Your task to perform on an android device: see tabs open on other devices in the chrome app Image 0: 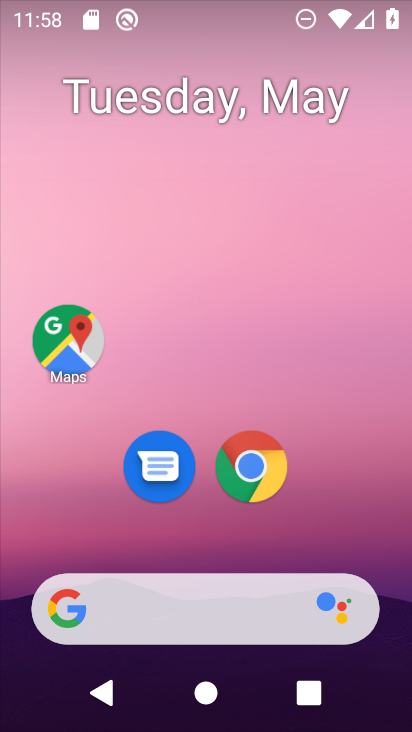
Step 0: click (254, 458)
Your task to perform on an android device: see tabs open on other devices in the chrome app Image 1: 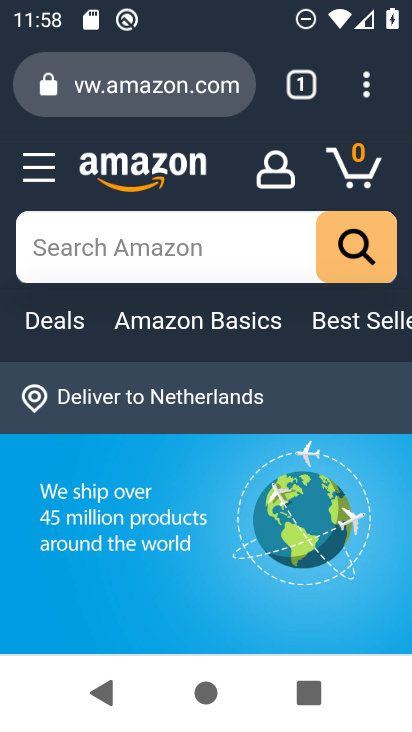
Step 1: click (368, 77)
Your task to perform on an android device: see tabs open on other devices in the chrome app Image 2: 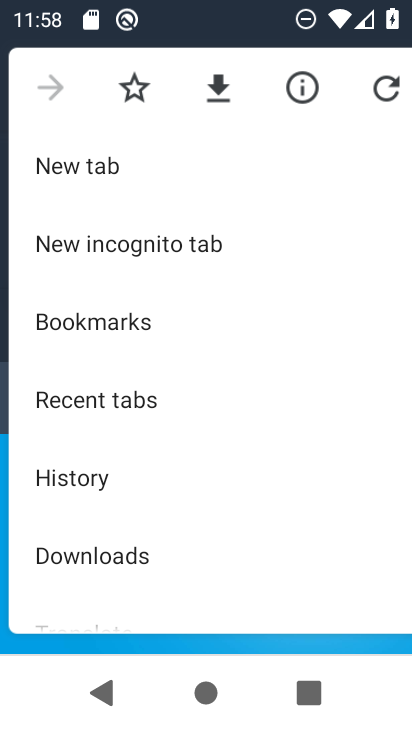
Step 2: click (170, 394)
Your task to perform on an android device: see tabs open on other devices in the chrome app Image 3: 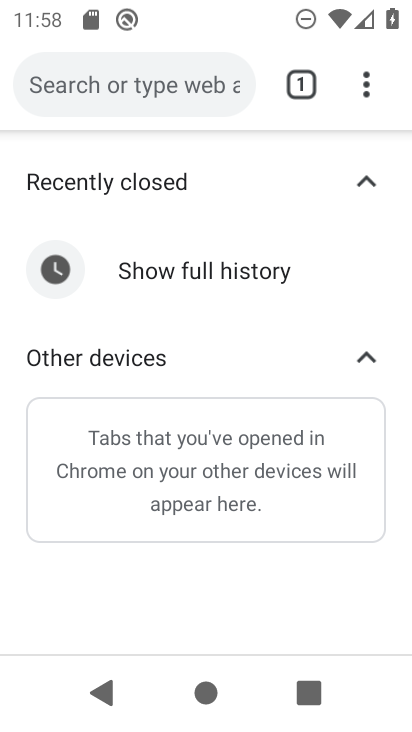
Step 3: task complete